Your task to perform on an android device: open a bookmark in the chrome app Image 0: 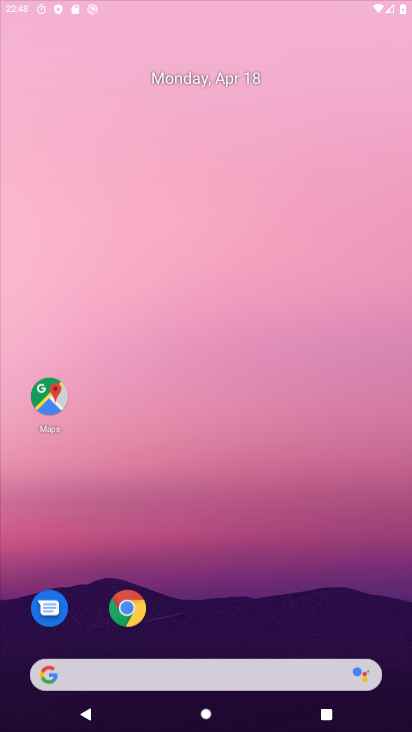
Step 0: drag from (221, 182) to (409, 115)
Your task to perform on an android device: open a bookmark in the chrome app Image 1: 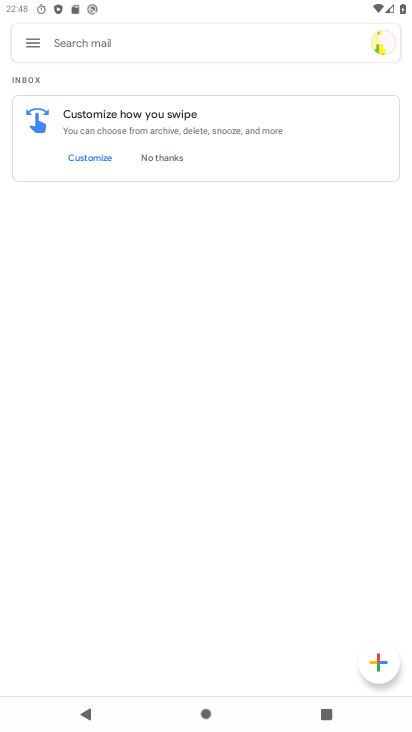
Step 1: press home button
Your task to perform on an android device: open a bookmark in the chrome app Image 2: 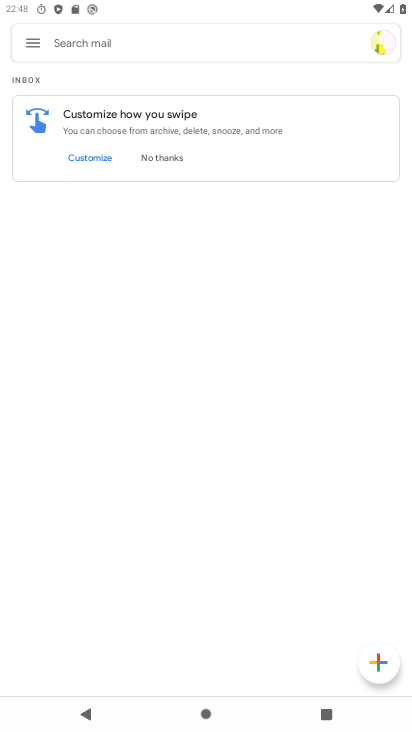
Step 2: drag from (409, 115) to (400, 512)
Your task to perform on an android device: open a bookmark in the chrome app Image 3: 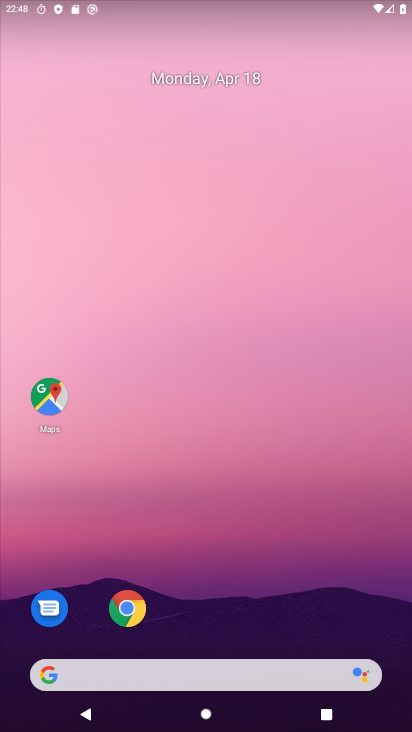
Step 3: click (129, 608)
Your task to perform on an android device: open a bookmark in the chrome app Image 4: 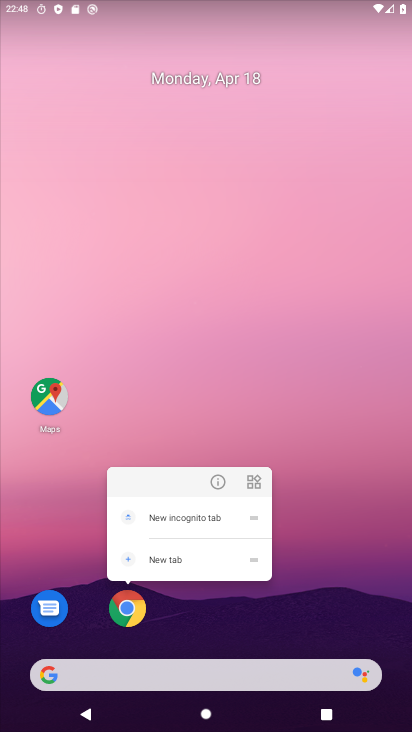
Step 4: click (126, 610)
Your task to perform on an android device: open a bookmark in the chrome app Image 5: 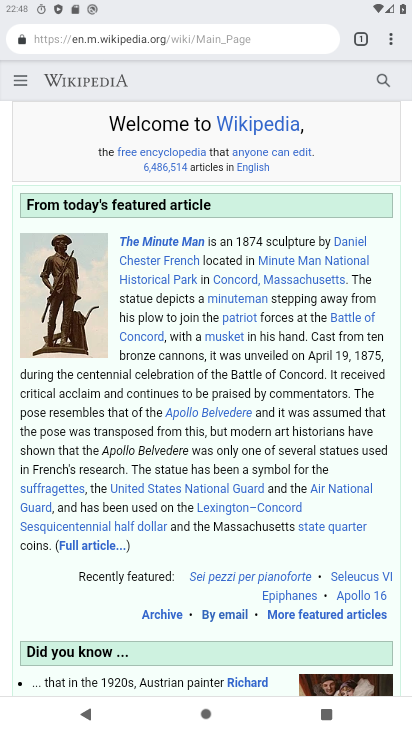
Step 5: click (389, 40)
Your task to perform on an android device: open a bookmark in the chrome app Image 6: 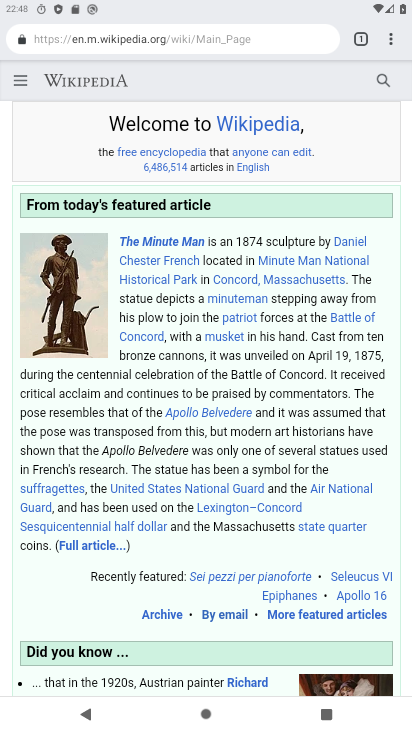
Step 6: drag from (387, 35) to (273, 192)
Your task to perform on an android device: open a bookmark in the chrome app Image 7: 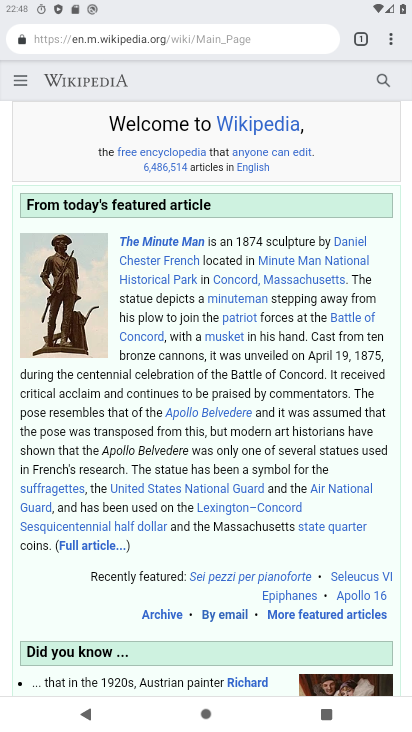
Step 7: click (273, 192)
Your task to perform on an android device: open a bookmark in the chrome app Image 8: 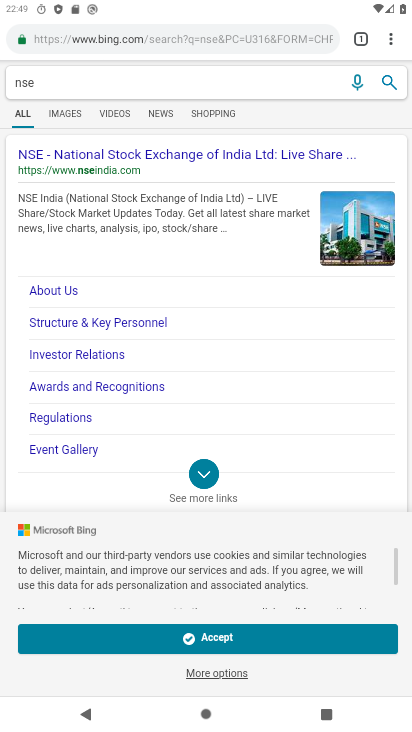
Step 8: task complete